Your task to perform on an android device: turn smart compose on in the gmail app Image 0: 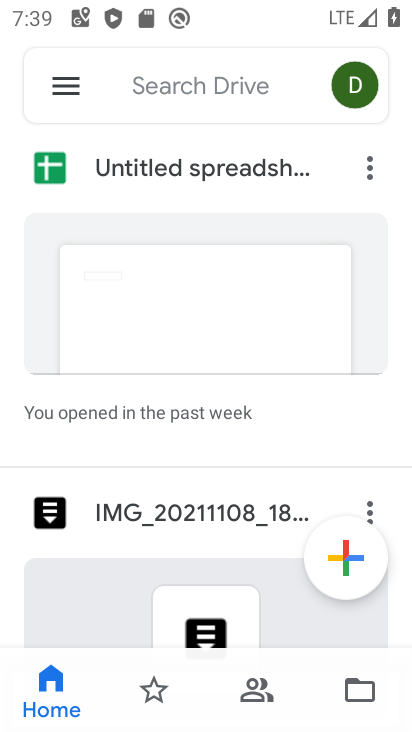
Step 0: press home button
Your task to perform on an android device: turn smart compose on in the gmail app Image 1: 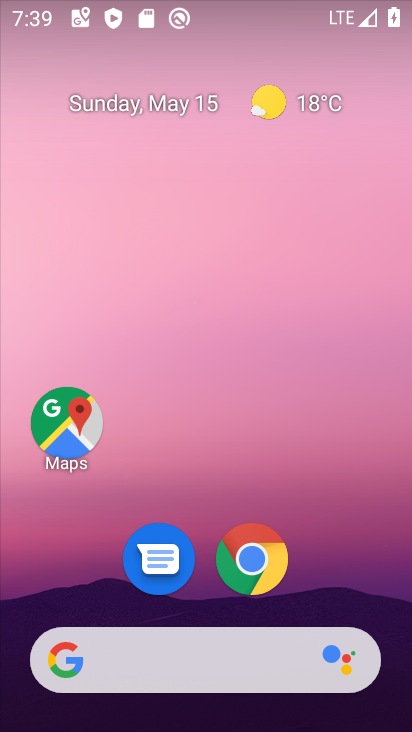
Step 1: drag from (279, 488) to (217, 1)
Your task to perform on an android device: turn smart compose on in the gmail app Image 2: 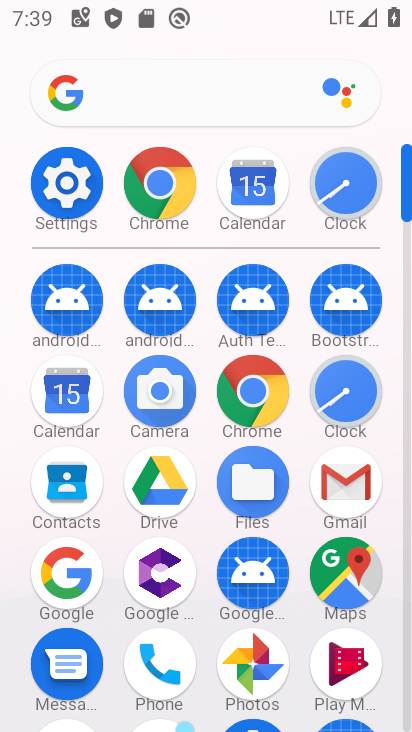
Step 2: click (336, 476)
Your task to perform on an android device: turn smart compose on in the gmail app Image 3: 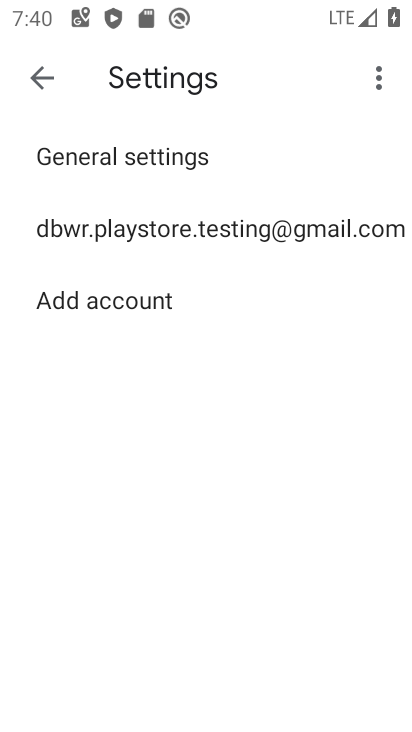
Step 3: click (126, 225)
Your task to perform on an android device: turn smart compose on in the gmail app Image 4: 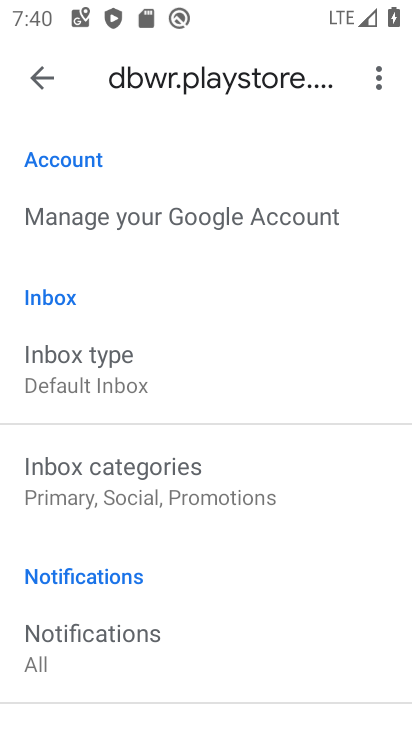
Step 4: task complete